Your task to perform on an android device: Go to Reddit.com Image 0: 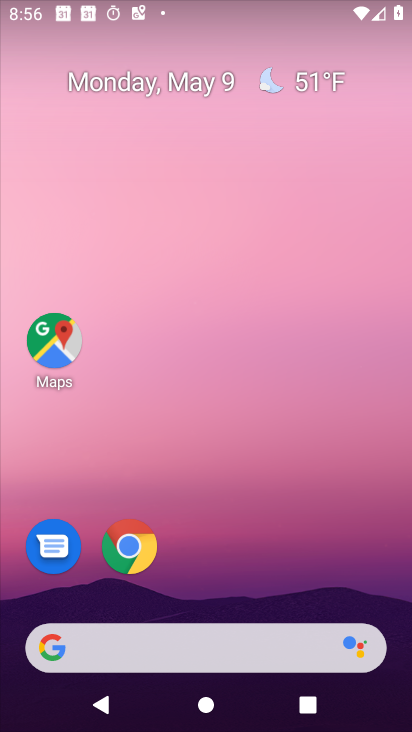
Step 0: click (129, 539)
Your task to perform on an android device: Go to Reddit.com Image 1: 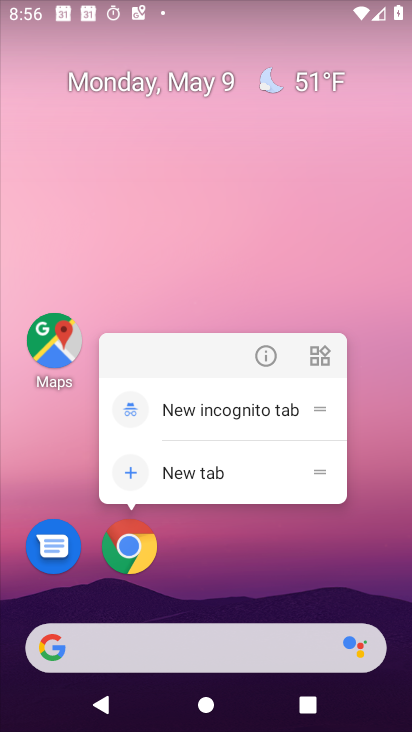
Step 1: click (122, 539)
Your task to perform on an android device: Go to Reddit.com Image 2: 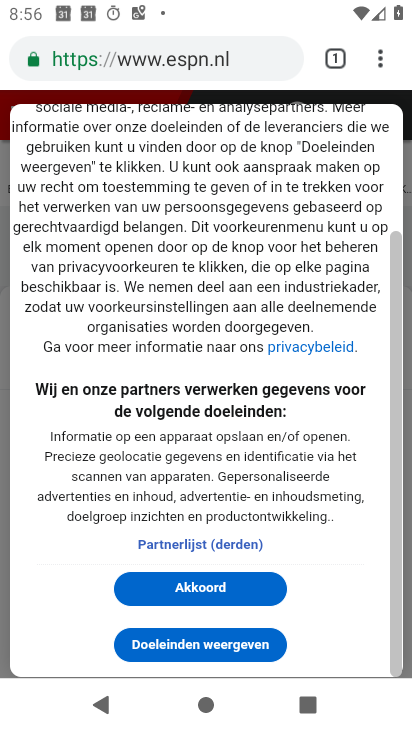
Step 2: drag from (377, 59) to (167, 122)
Your task to perform on an android device: Go to Reddit.com Image 3: 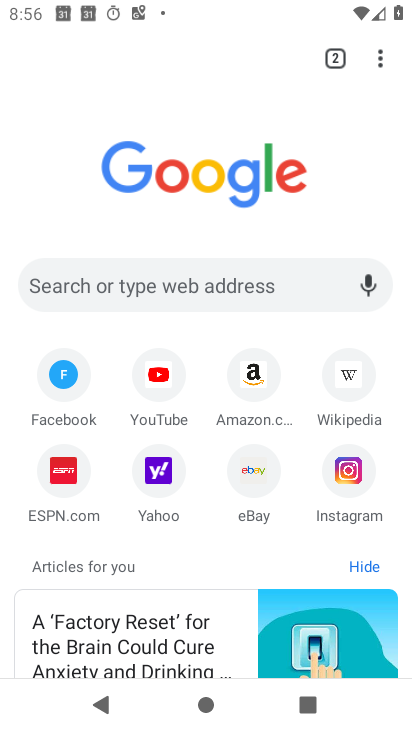
Step 3: click (96, 281)
Your task to perform on an android device: Go to Reddit.com Image 4: 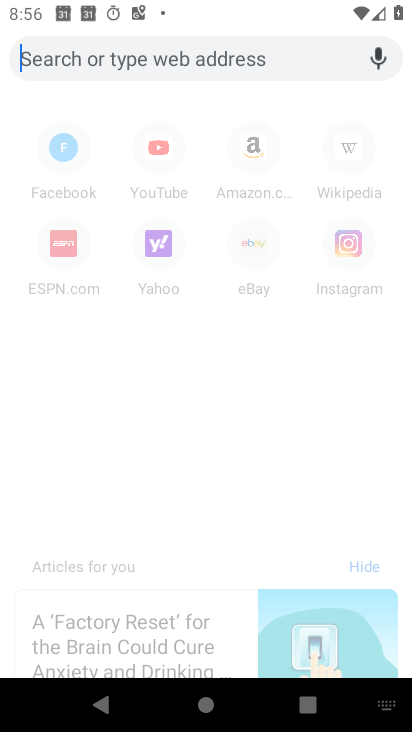
Step 4: type " Reddit.com"
Your task to perform on an android device: Go to Reddit.com Image 5: 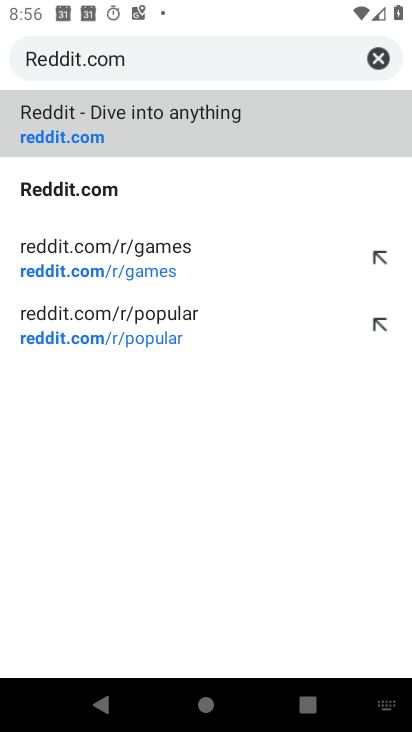
Step 5: click (52, 139)
Your task to perform on an android device: Go to Reddit.com Image 6: 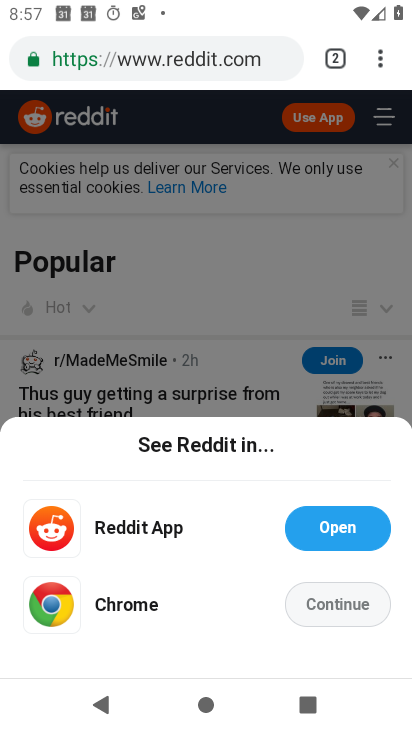
Step 6: task complete